Your task to perform on an android device: Go to Wikipedia Image 0: 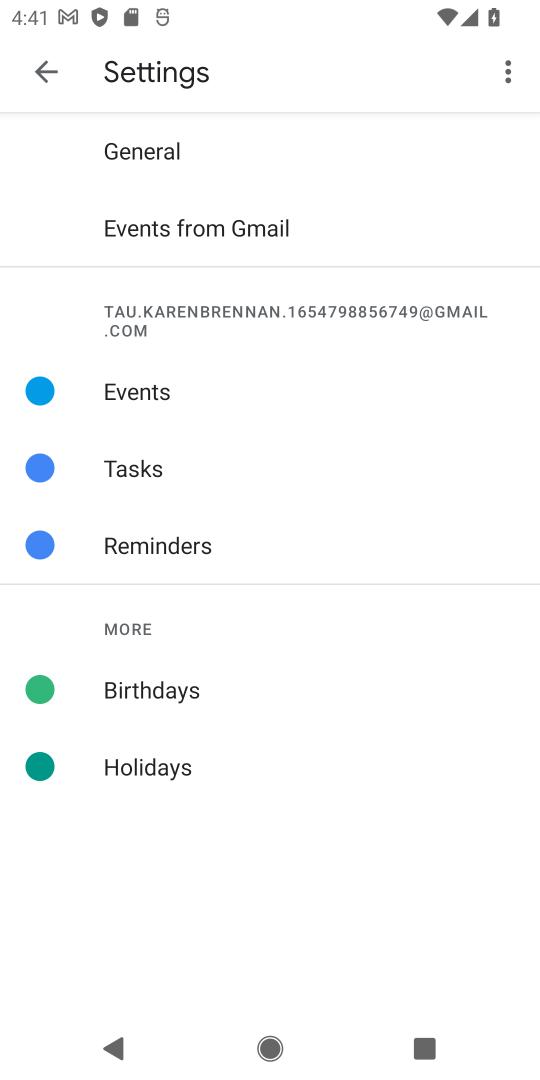
Step 0: press home button
Your task to perform on an android device: Go to Wikipedia Image 1: 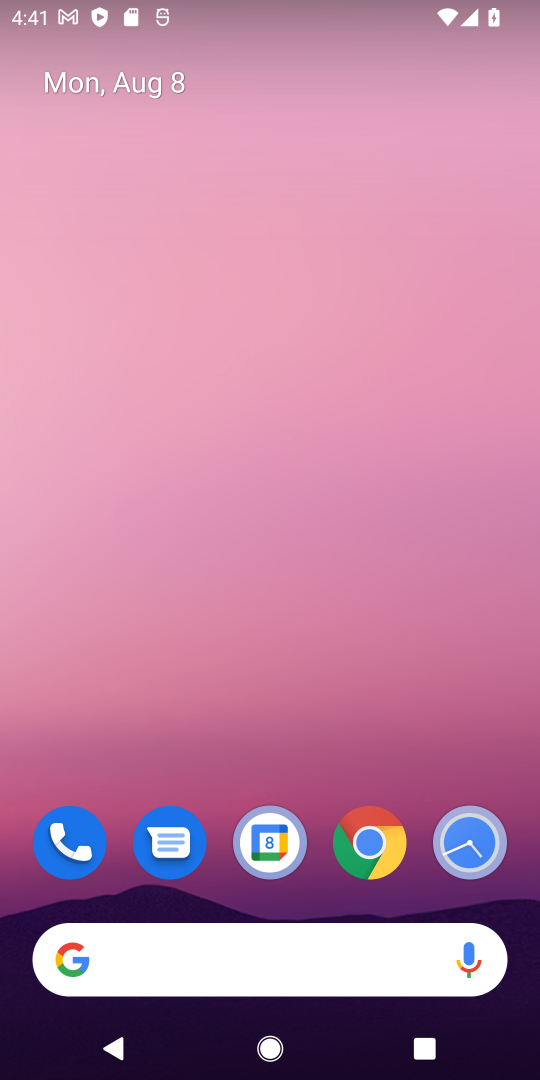
Step 1: click (363, 831)
Your task to perform on an android device: Go to Wikipedia Image 2: 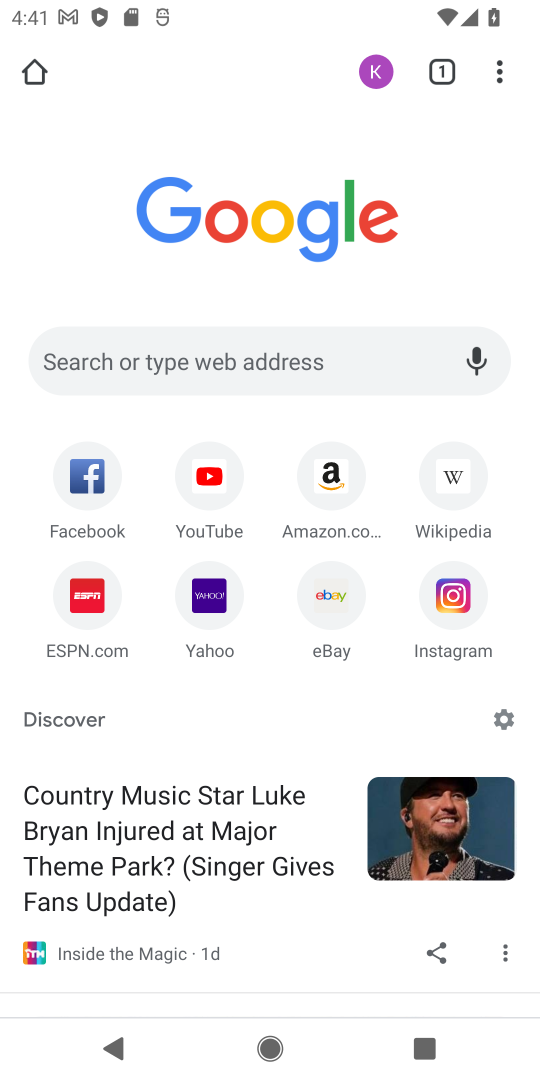
Step 2: click (438, 484)
Your task to perform on an android device: Go to Wikipedia Image 3: 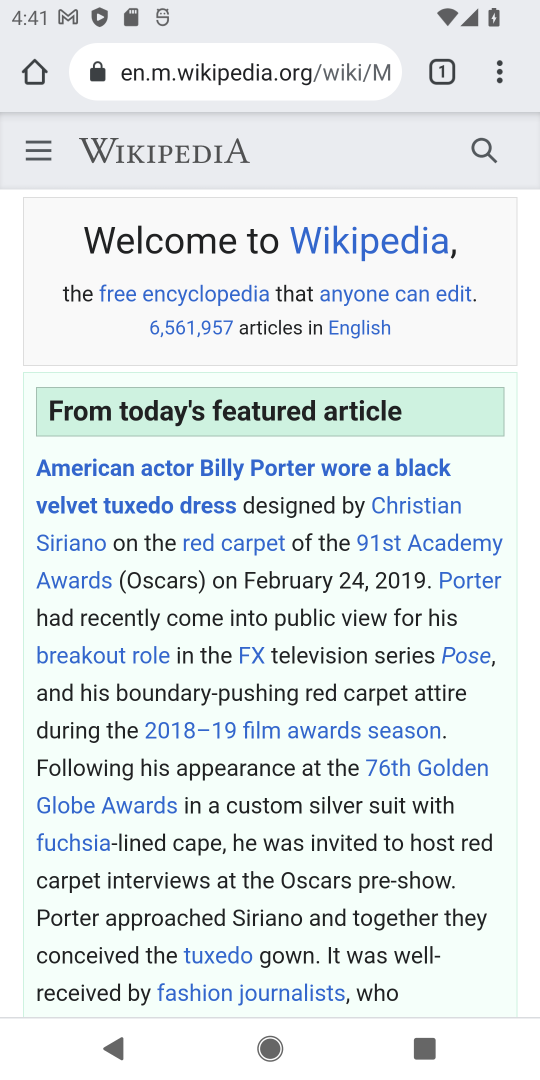
Step 3: task complete